Your task to perform on an android device: Open the phone app and click the voicemail tab. Image 0: 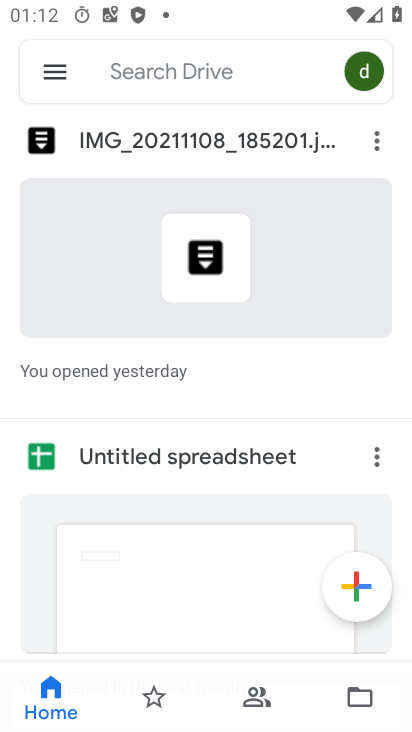
Step 0: press home button
Your task to perform on an android device: Open the phone app and click the voicemail tab. Image 1: 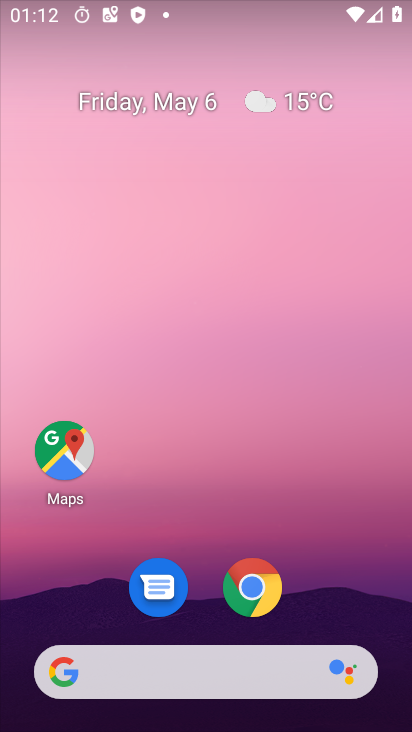
Step 1: drag from (400, 311) to (406, 204)
Your task to perform on an android device: Open the phone app and click the voicemail tab. Image 2: 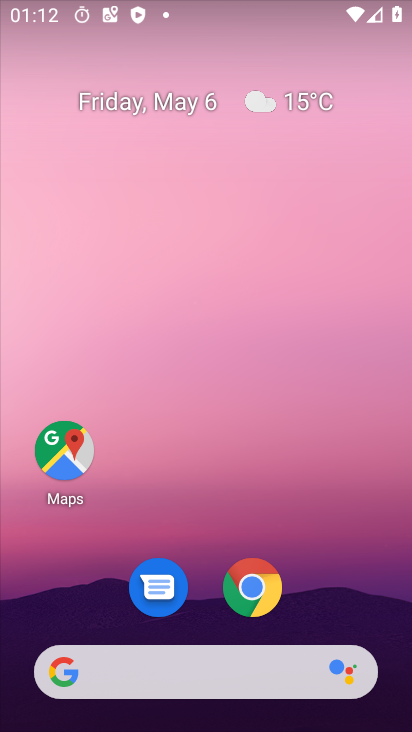
Step 2: drag from (391, 504) to (404, 270)
Your task to perform on an android device: Open the phone app and click the voicemail tab. Image 3: 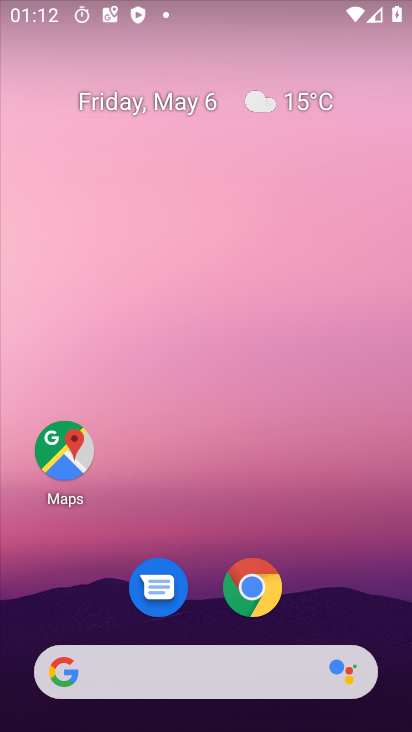
Step 3: drag from (379, 419) to (384, 170)
Your task to perform on an android device: Open the phone app and click the voicemail tab. Image 4: 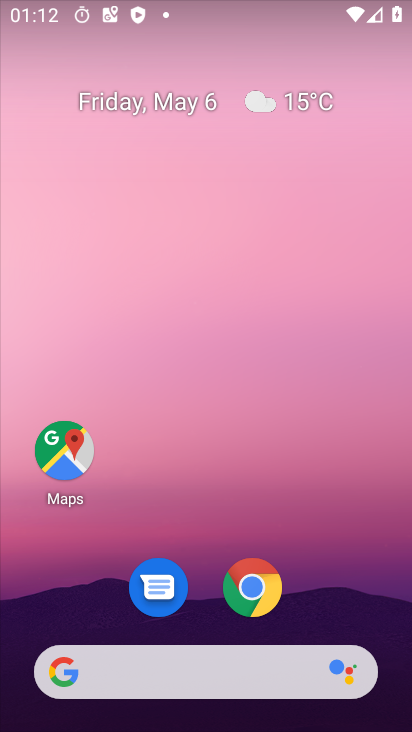
Step 4: drag from (375, 564) to (390, 255)
Your task to perform on an android device: Open the phone app and click the voicemail tab. Image 5: 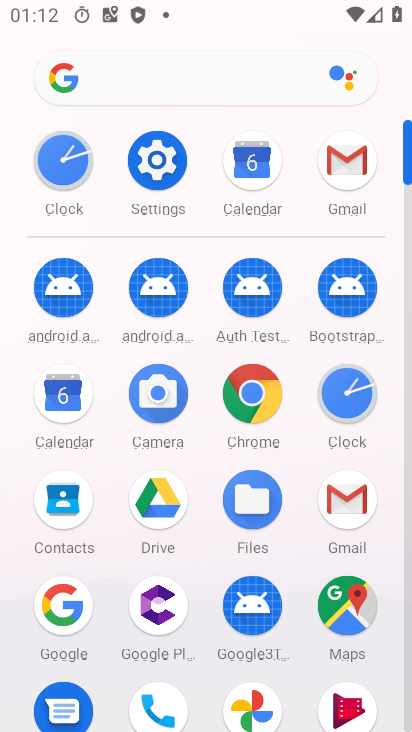
Step 5: click (158, 704)
Your task to perform on an android device: Open the phone app and click the voicemail tab. Image 6: 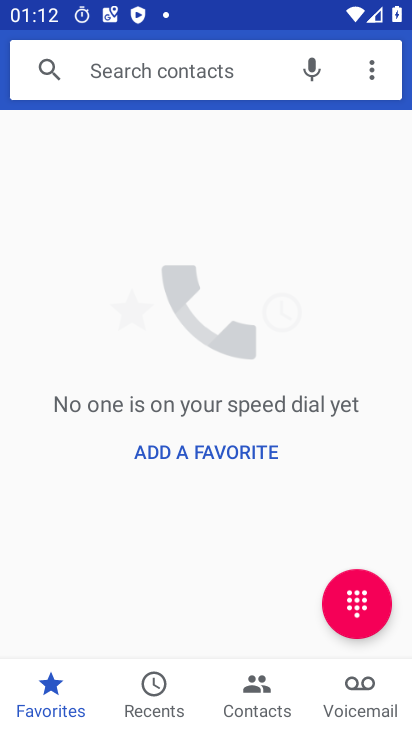
Step 6: click (381, 712)
Your task to perform on an android device: Open the phone app and click the voicemail tab. Image 7: 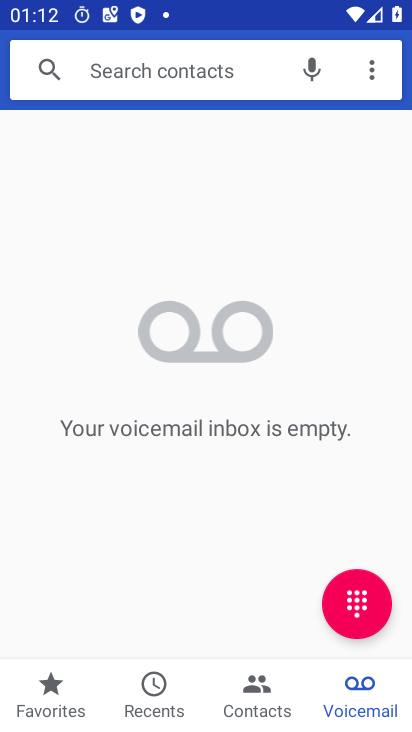
Step 7: task complete